Your task to perform on an android device: Add "usb-b" to the cart on ebay.com, then select checkout. Image 0: 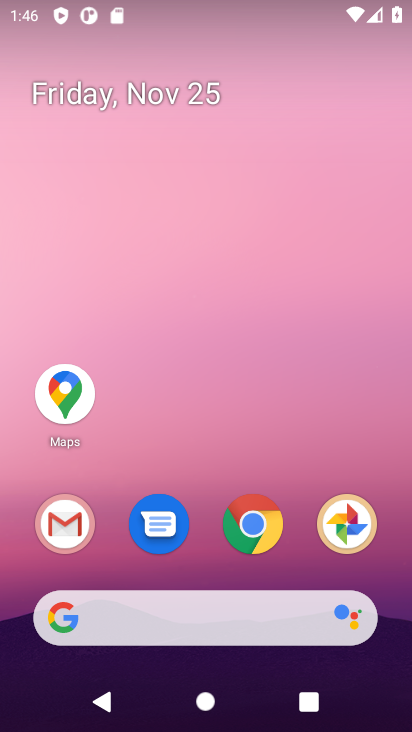
Step 0: click (258, 532)
Your task to perform on an android device: Add "usb-b" to the cart on ebay.com, then select checkout. Image 1: 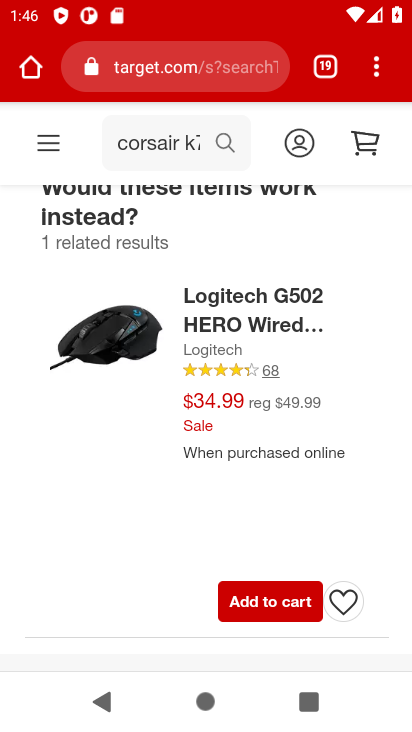
Step 1: click (164, 68)
Your task to perform on an android device: Add "usb-b" to the cart on ebay.com, then select checkout. Image 2: 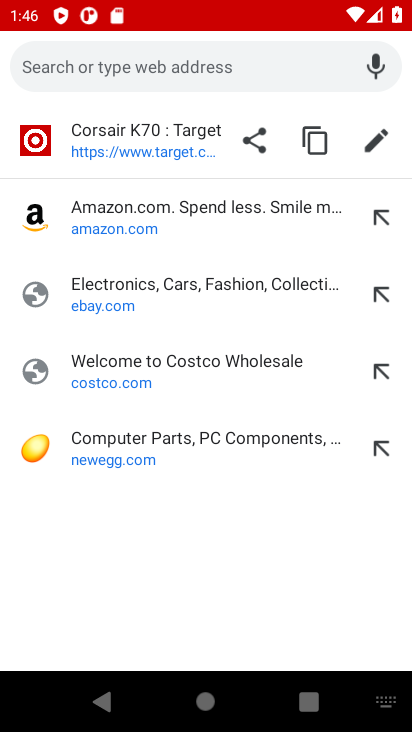
Step 2: click (93, 297)
Your task to perform on an android device: Add "usb-b" to the cart on ebay.com, then select checkout. Image 3: 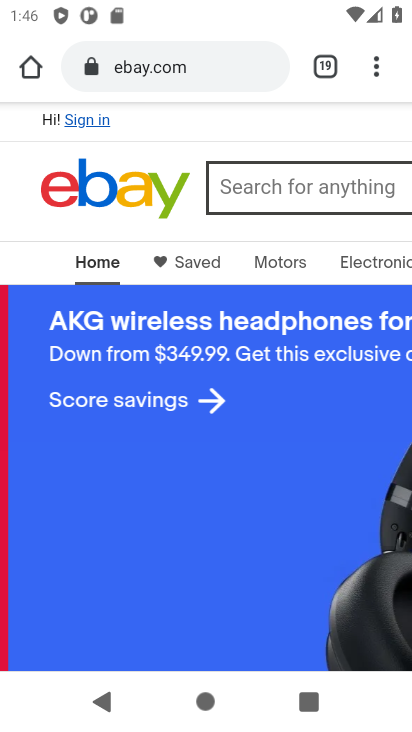
Step 3: click (308, 192)
Your task to perform on an android device: Add "usb-b" to the cart on ebay.com, then select checkout. Image 4: 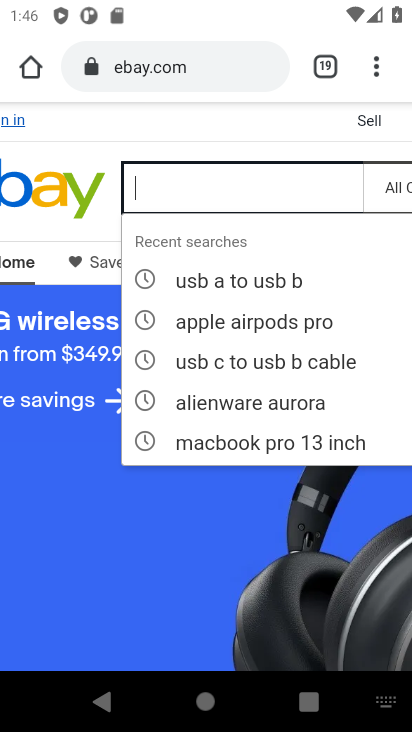
Step 4: type "usb-b"
Your task to perform on an android device: Add "usb-b" to the cart on ebay.com, then select checkout. Image 5: 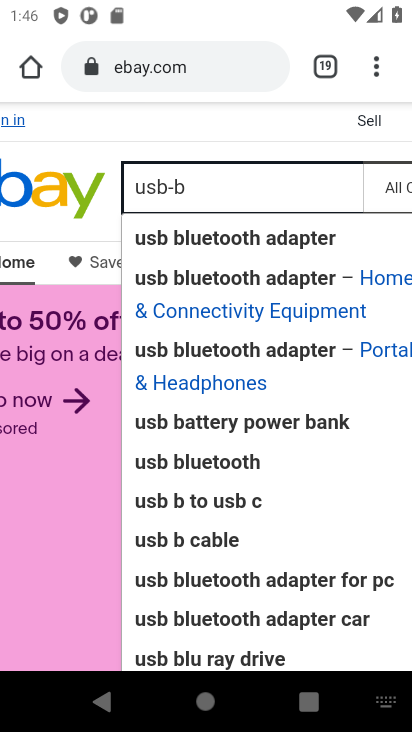
Step 5: drag from (337, 148) to (0, 133)
Your task to perform on an android device: Add "usb-b" to the cart on ebay.com, then select checkout. Image 6: 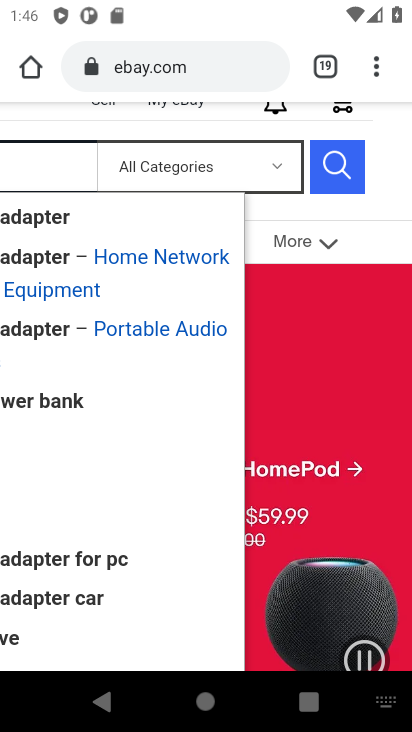
Step 6: click (339, 158)
Your task to perform on an android device: Add "usb-b" to the cart on ebay.com, then select checkout. Image 7: 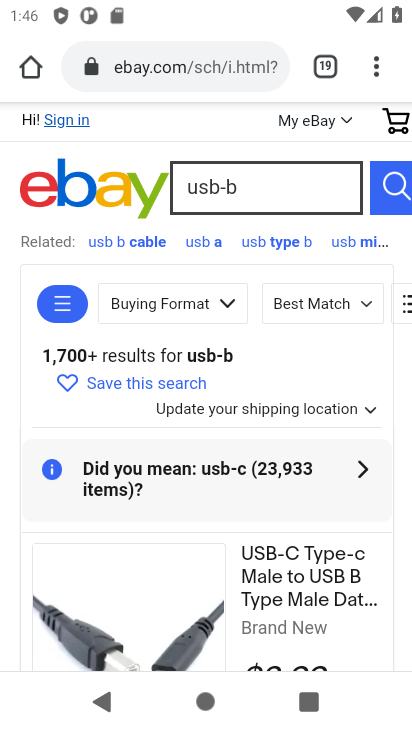
Step 7: drag from (198, 518) to (234, 270)
Your task to perform on an android device: Add "usb-b" to the cart on ebay.com, then select checkout. Image 8: 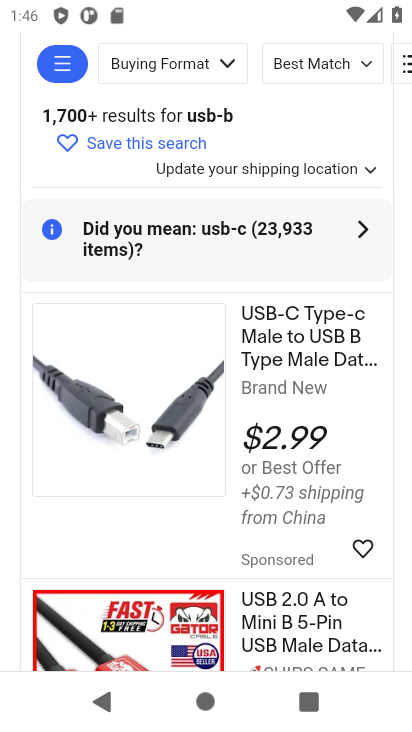
Step 8: click (156, 444)
Your task to perform on an android device: Add "usb-b" to the cart on ebay.com, then select checkout. Image 9: 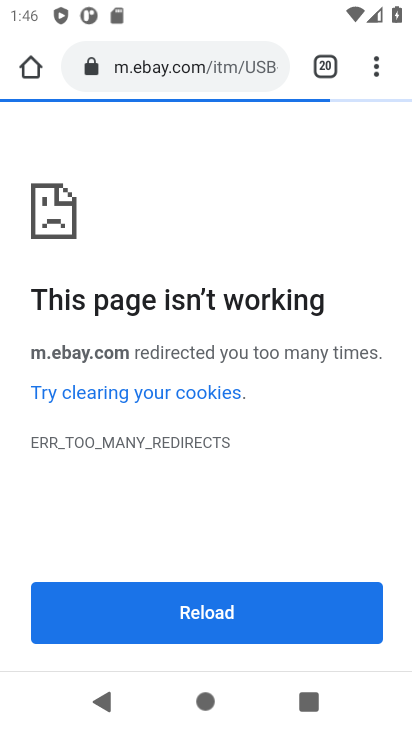
Step 9: task complete